Your task to perform on an android device: Open battery settings Image 0: 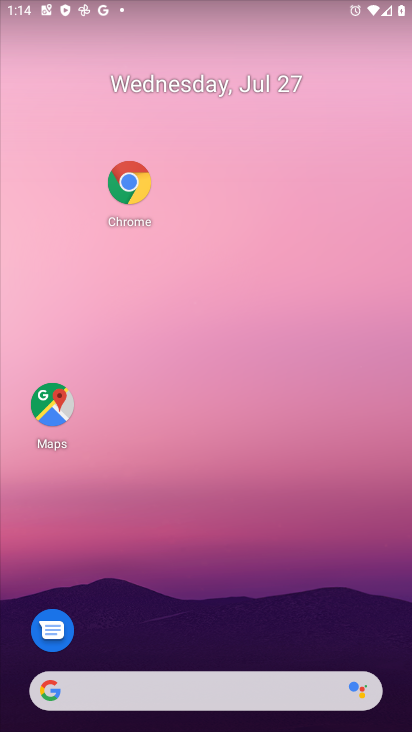
Step 0: drag from (247, 645) to (247, 249)
Your task to perform on an android device: Open battery settings Image 1: 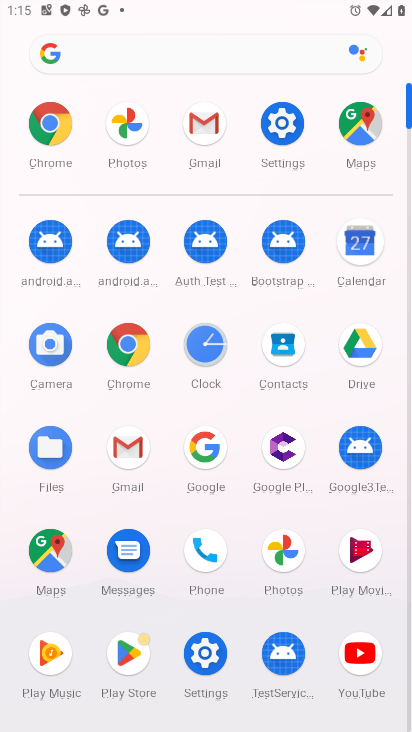
Step 1: click (281, 117)
Your task to perform on an android device: Open battery settings Image 2: 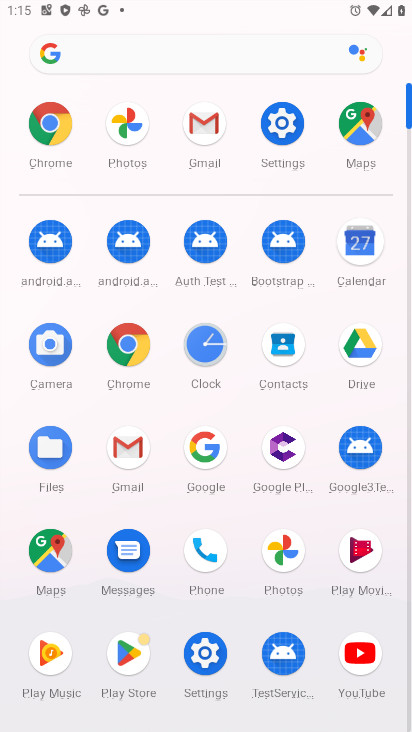
Step 2: click (281, 117)
Your task to perform on an android device: Open battery settings Image 3: 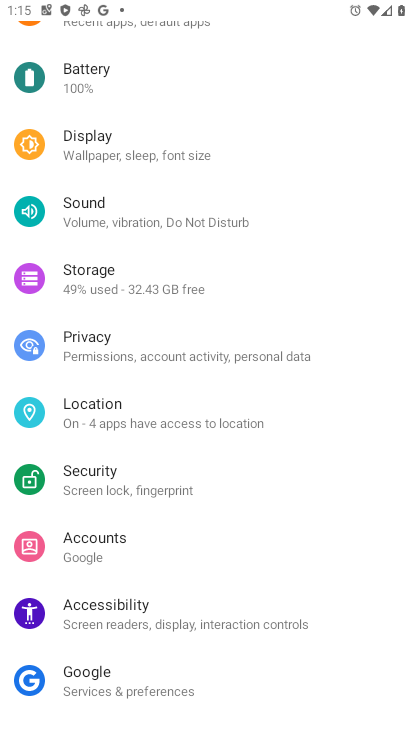
Step 3: click (182, 77)
Your task to perform on an android device: Open battery settings Image 4: 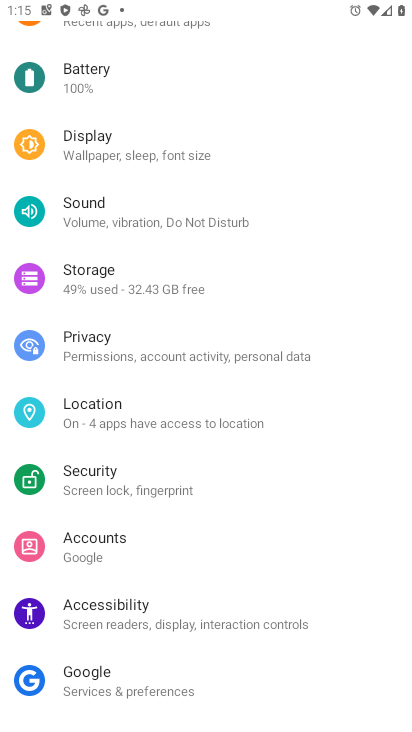
Step 4: click (182, 77)
Your task to perform on an android device: Open battery settings Image 5: 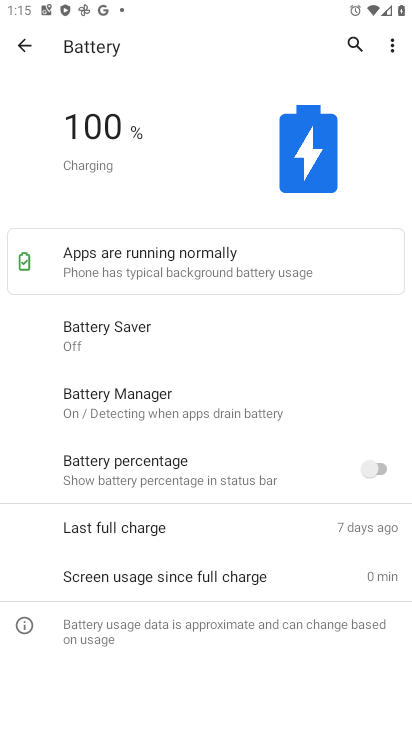
Step 5: task complete